Your task to perform on an android device: Open CNN.com Image 0: 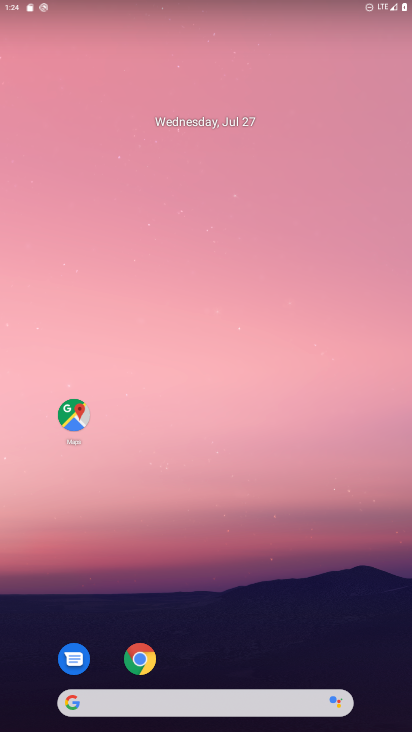
Step 0: click (154, 708)
Your task to perform on an android device: Open CNN.com Image 1: 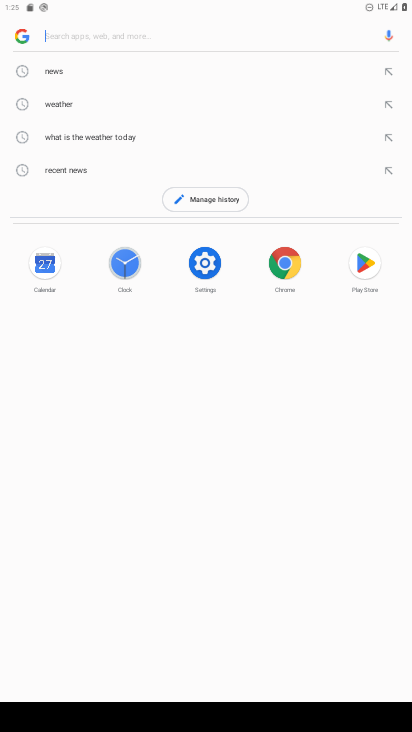
Step 1: type "CNN.com"
Your task to perform on an android device: Open CNN.com Image 2: 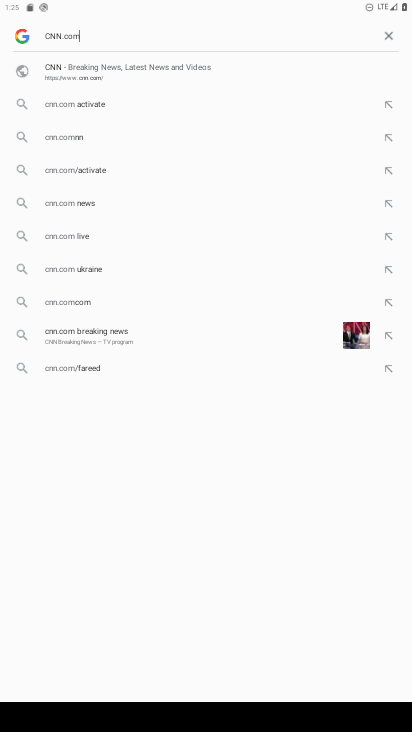
Step 2: click (240, 76)
Your task to perform on an android device: Open CNN.com Image 3: 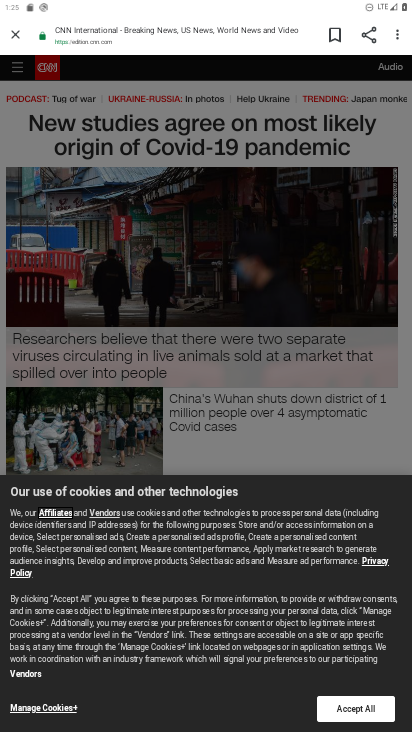
Step 3: task complete